Your task to perform on an android device: toggle airplane mode Image 0: 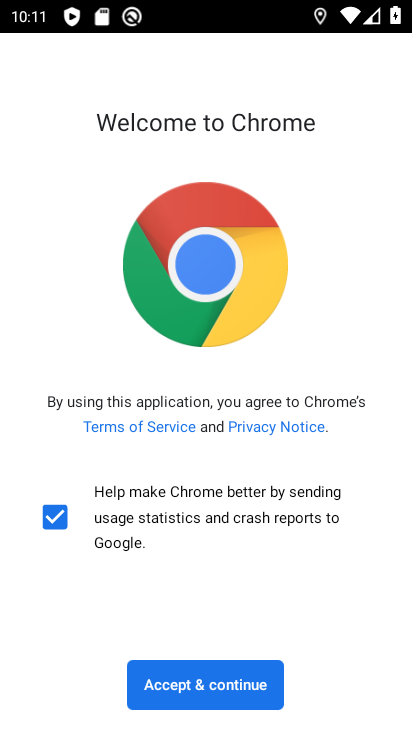
Step 0: press home button
Your task to perform on an android device: toggle airplane mode Image 1: 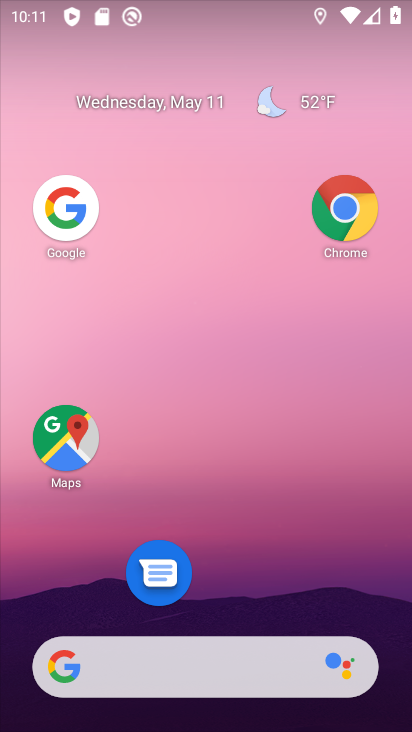
Step 1: drag from (215, 625) to (123, 14)
Your task to perform on an android device: toggle airplane mode Image 2: 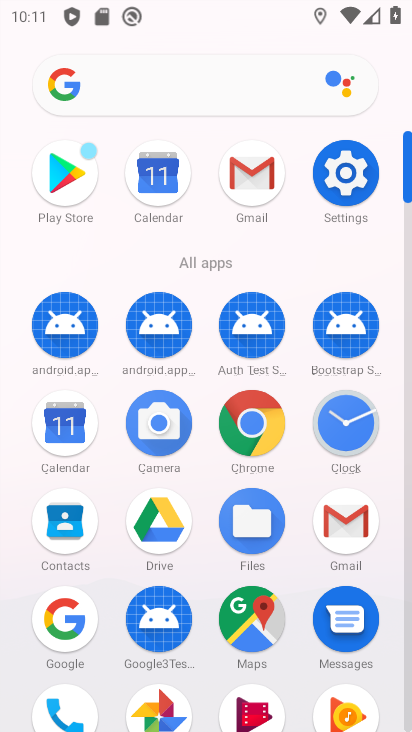
Step 2: click (348, 163)
Your task to perform on an android device: toggle airplane mode Image 3: 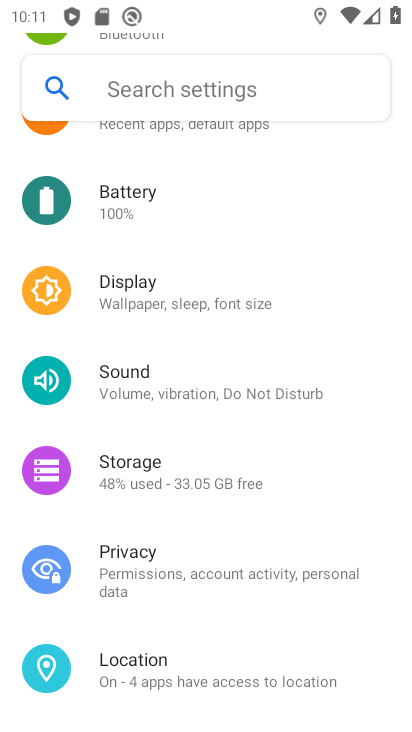
Step 3: drag from (311, 178) to (247, 623)
Your task to perform on an android device: toggle airplane mode Image 4: 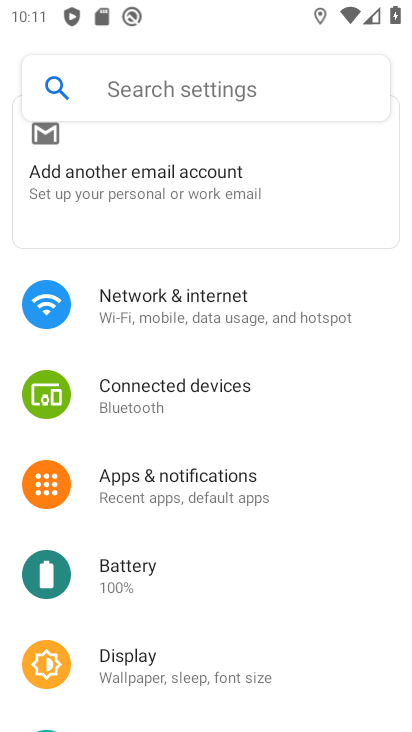
Step 4: click (165, 330)
Your task to perform on an android device: toggle airplane mode Image 5: 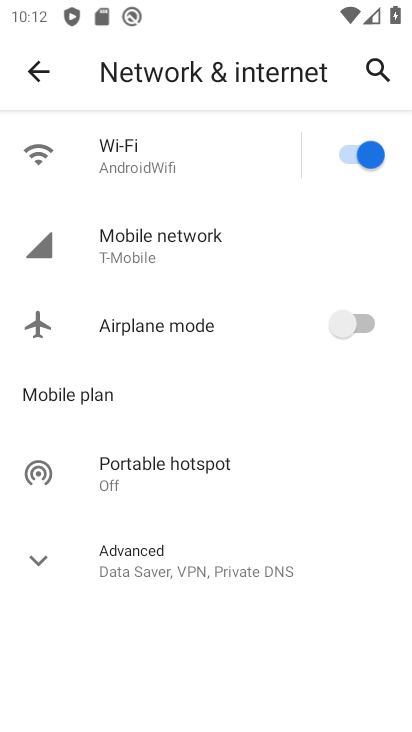
Step 5: click (325, 343)
Your task to perform on an android device: toggle airplane mode Image 6: 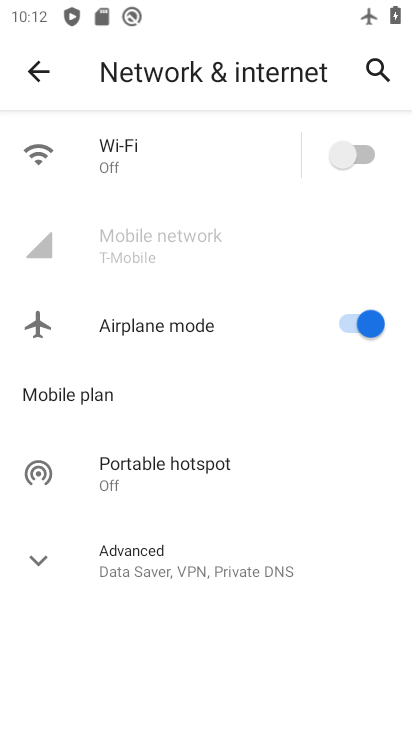
Step 6: task complete